Your task to perform on an android device: Search for the best selling jewelry on Etsy. Image 0: 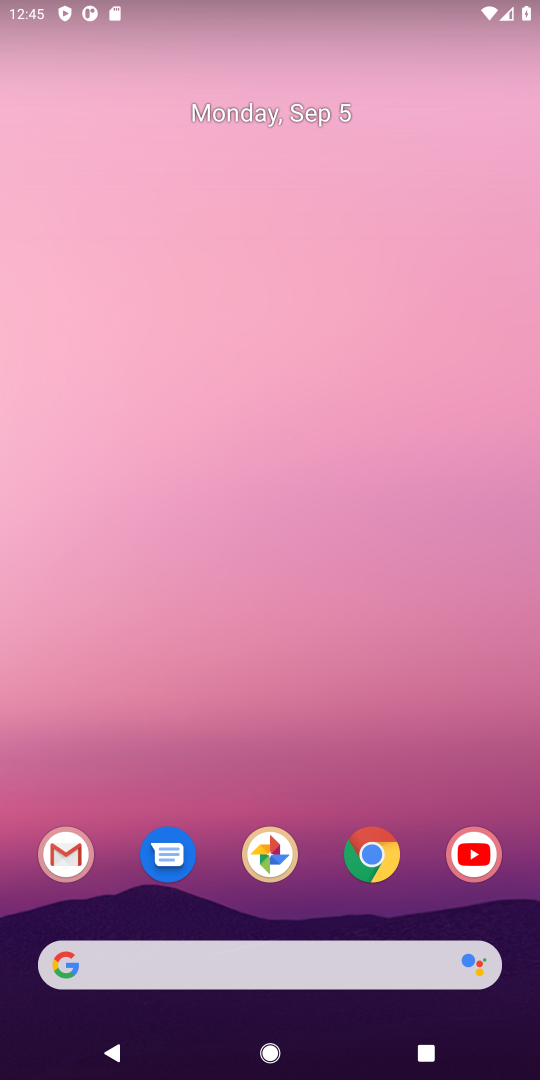
Step 0: click (379, 855)
Your task to perform on an android device: Search for the best selling jewelry on Etsy. Image 1: 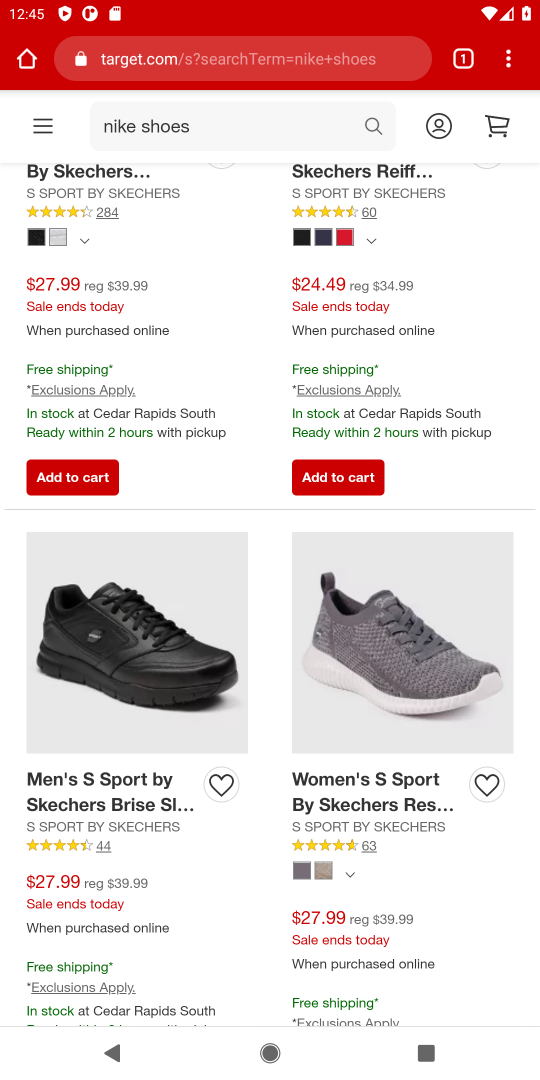
Step 1: click (334, 56)
Your task to perform on an android device: Search for the best selling jewelry on Etsy. Image 2: 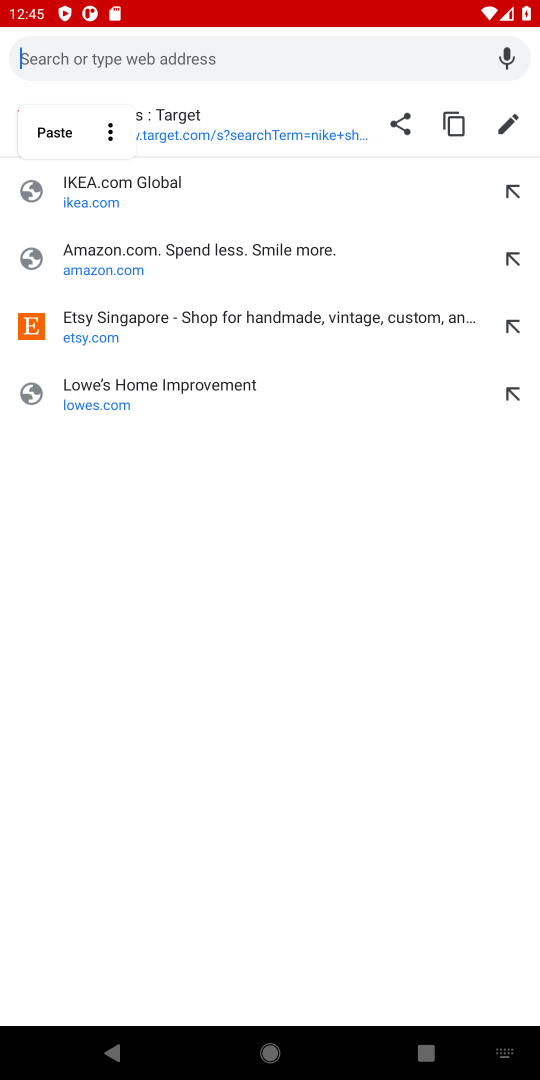
Step 2: press enter
Your task to perform on an android device: Search for the best selling jewelry on Etsy. Image 3: 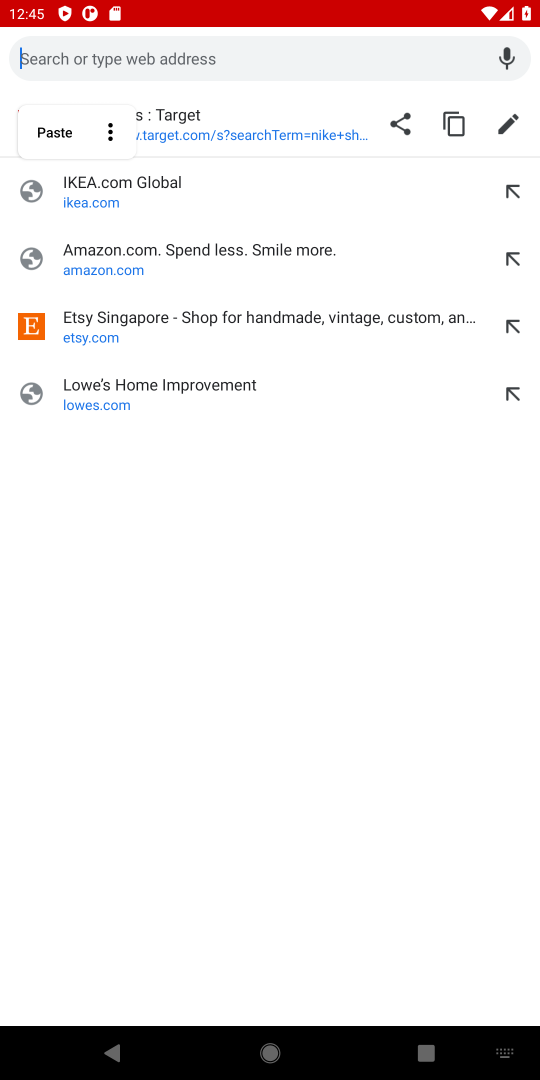
Step 3: type "Etsy"
Your task to perform on an android device: Search for the best selling jewelry on Etsy. Image 4: 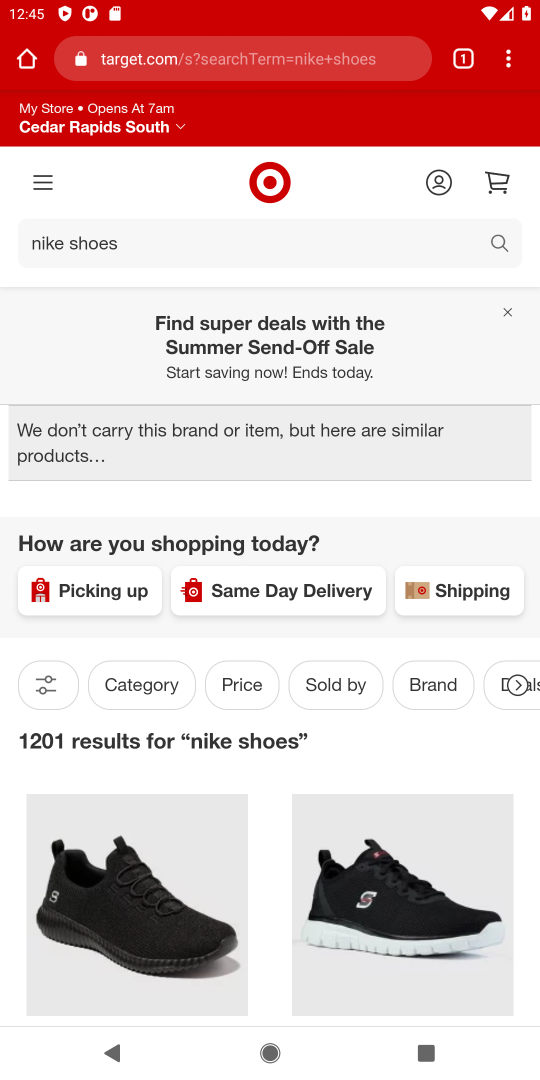
Step 4: click (334, 56)
Your task to perform on an android device: Search for the best selling jewelry on Etsy. Image 5: 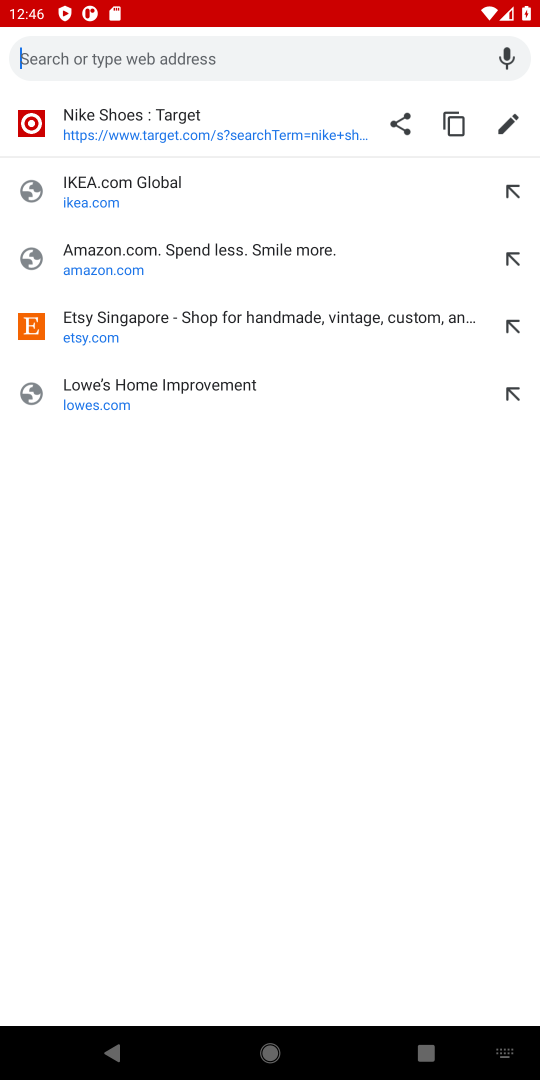
Step 5: type "Etsy"
Your task to perform on an android device: Search for the best selling jewelry on Etsy. Image 6: 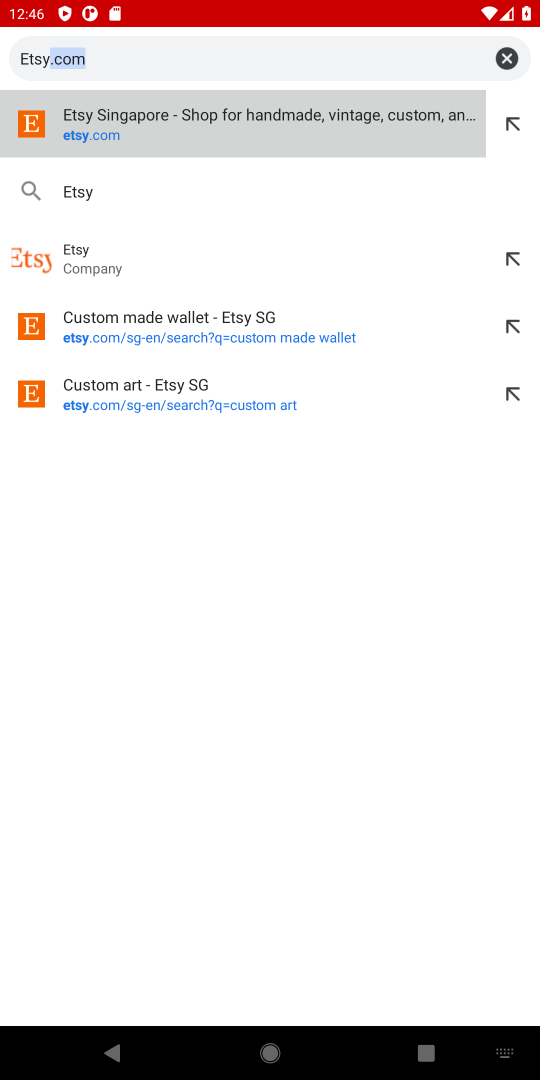
Step 6: press enter
Your task to perform on an android device: Search for the best selling jewelry on Etsy. Image 7: 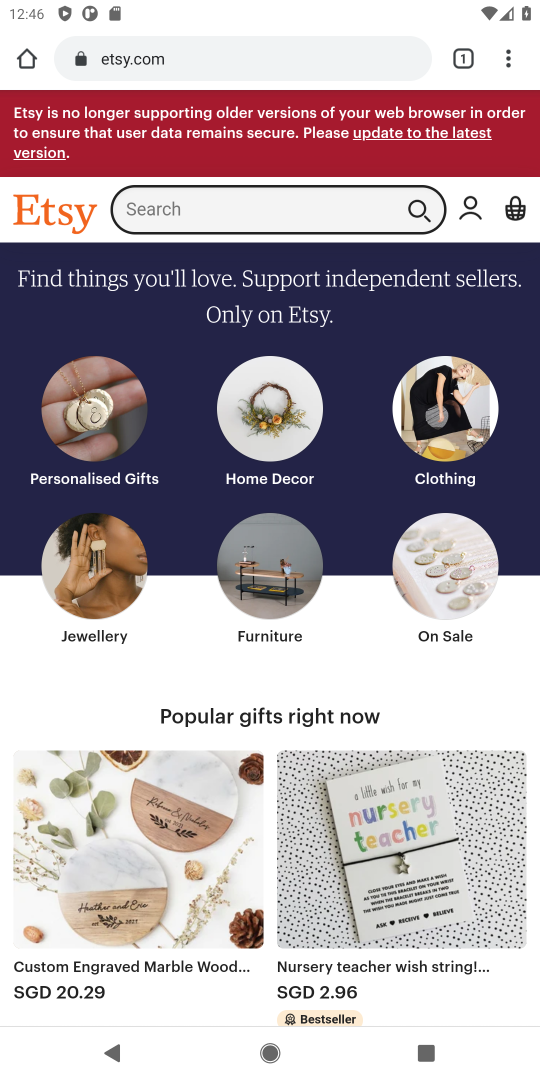
Step 7: click (360, 211)
Your task to perform on an android device: Search for the best selling jewelry on Etsy. Image 8: 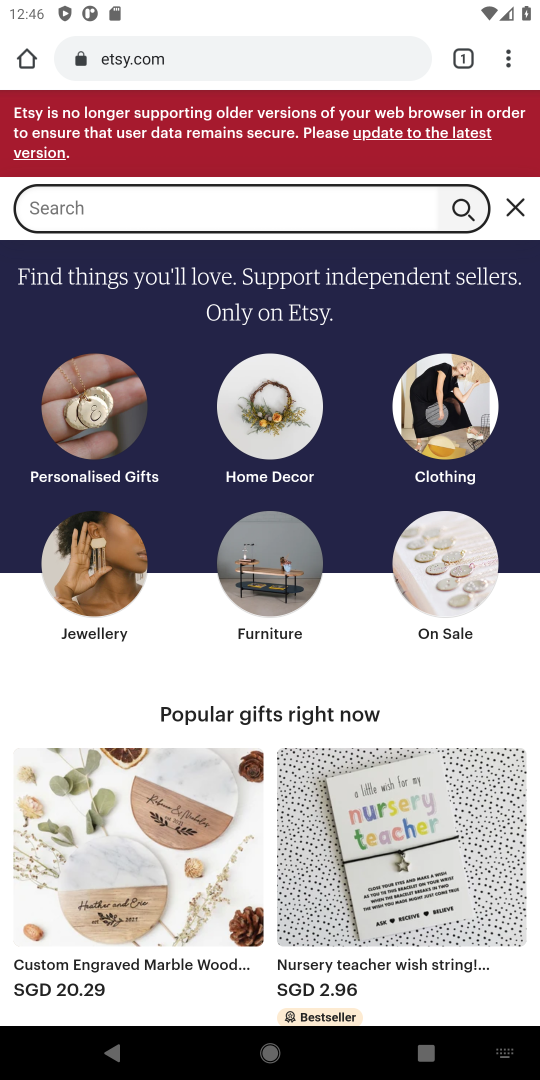
Step 8: click (57, 206)
Your task to perform on an android device: Search for the best selling jewelry on Etsy. Image 9: 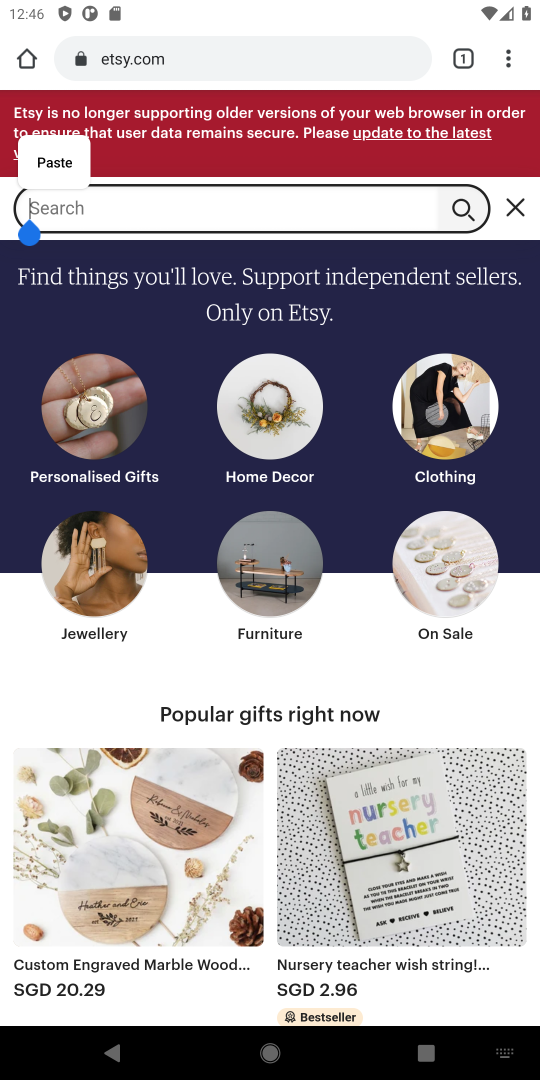
Step 9: type " jewelry"
Your task to perform on an android device: Search for the best selling jewelry on Etsy. Image 10: 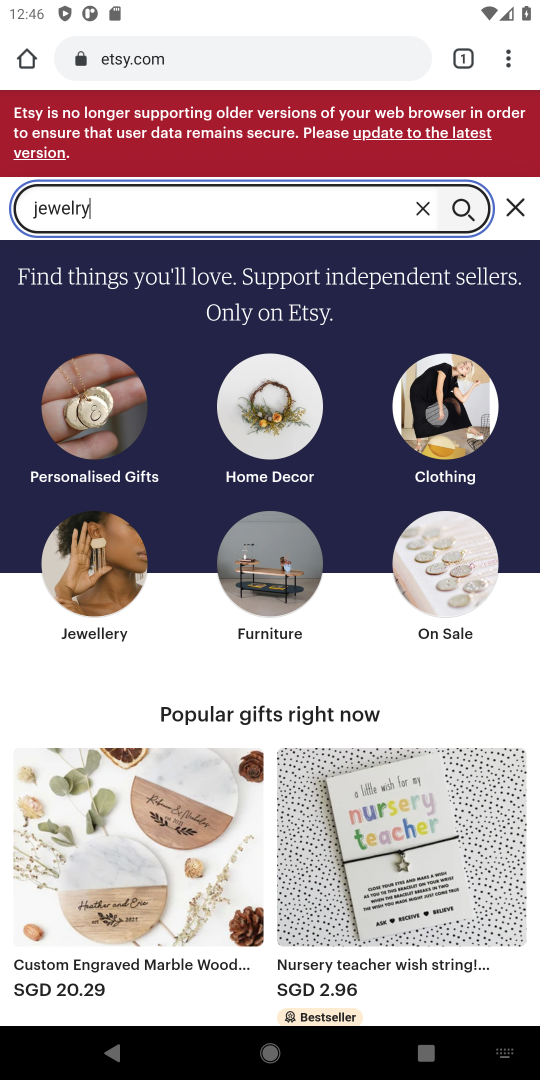
Step 10: press enter
Your task to perform on an android device: Search for the best selling jewelry on Etsy. Image 11: 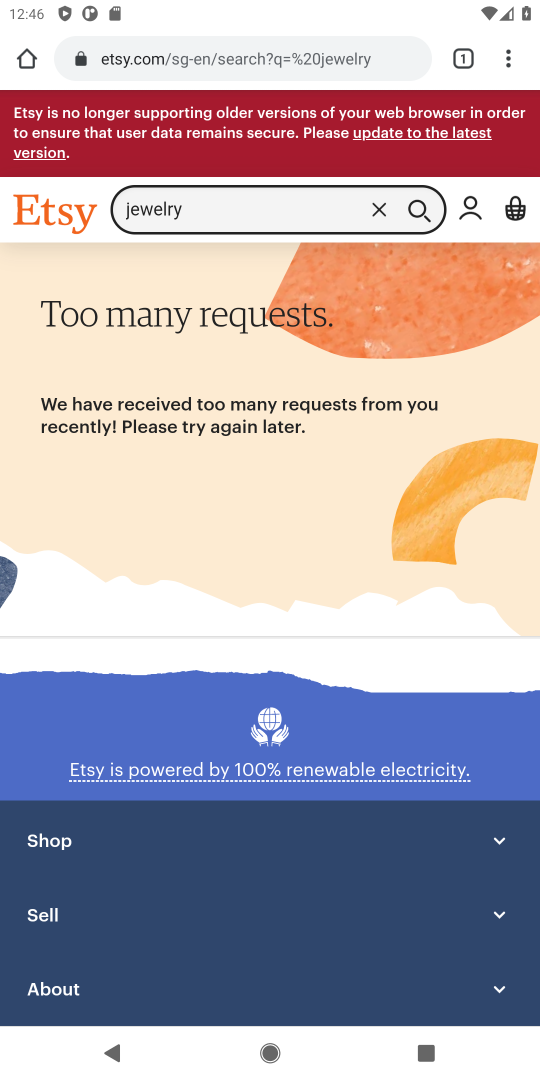
Step 11: click (355, 218)
Your task to perform on an android device: Search for the best selling jewelry on Etsy. Image 12: 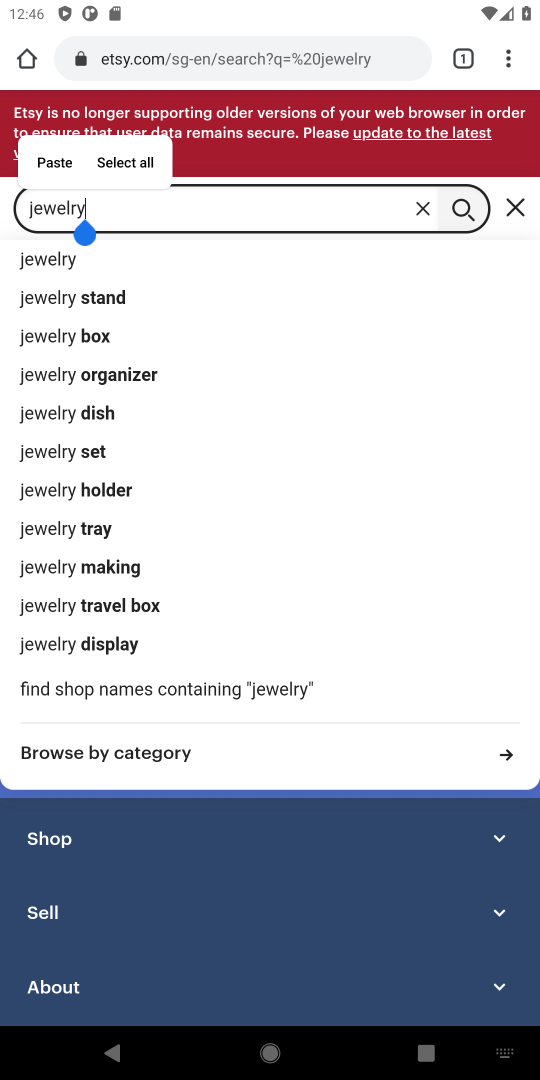
Step 12: click (57, 259)
Your task to perform on an android device: Search for the best selling jewelry on Etsy. Image 13: 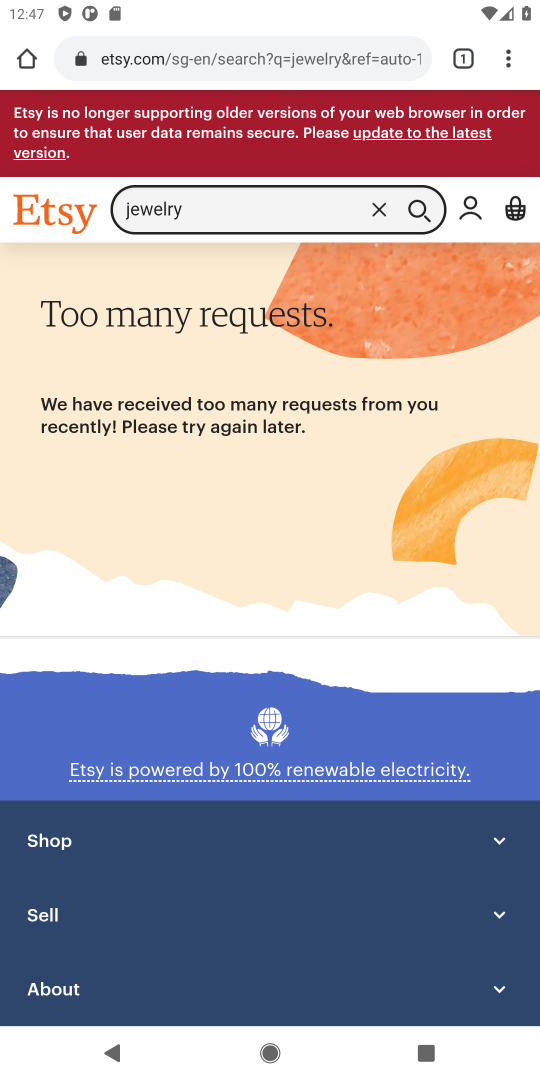
Step 13: click (418, 203)
Your task to perform on an android device: Search for the best selling jewelry on Etsy. Image 14: 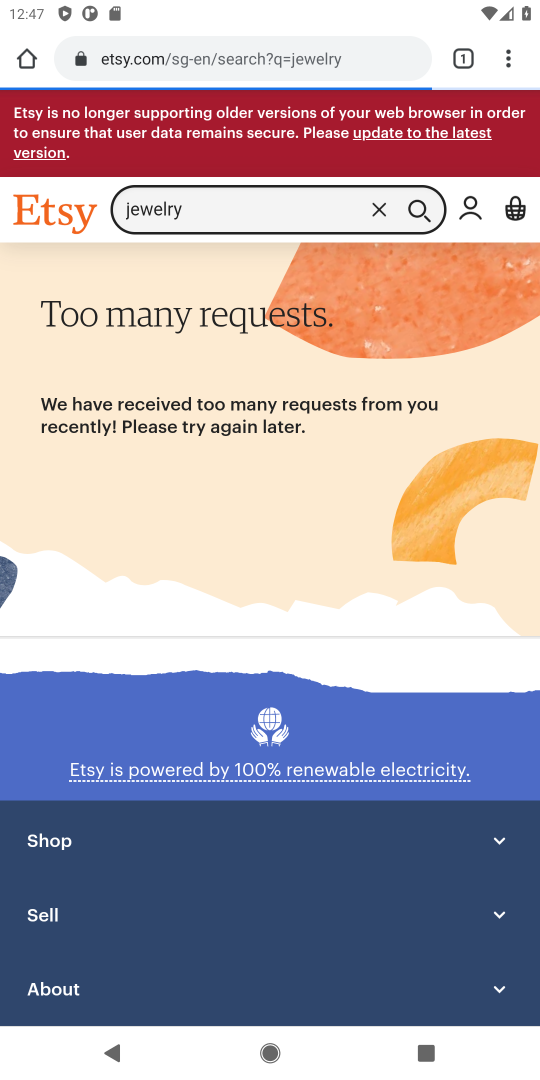
Step 14: click (376, 203)
Your task to perform on an android device: Search for the best selling jewelry on Etsy. Image 15: 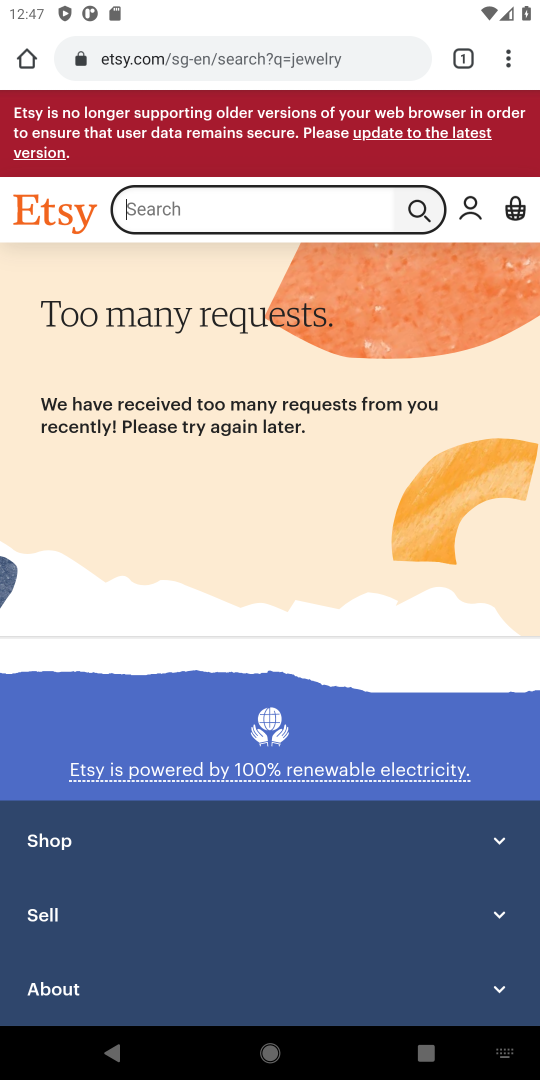
Step 15: click (251, 212)
Your task to perform on an android device: Search for the best selling jewelry on Etsy. Image 16: 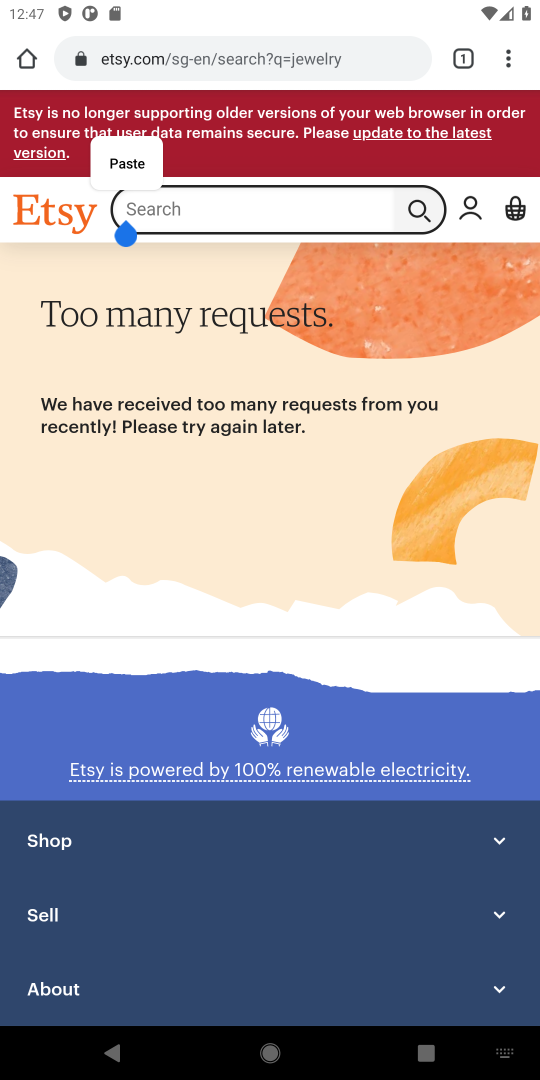
Step 16: type " selling jewelry"
Your task to perform on an android device: Search for the best selling jewelry on Etsy. Image 17: 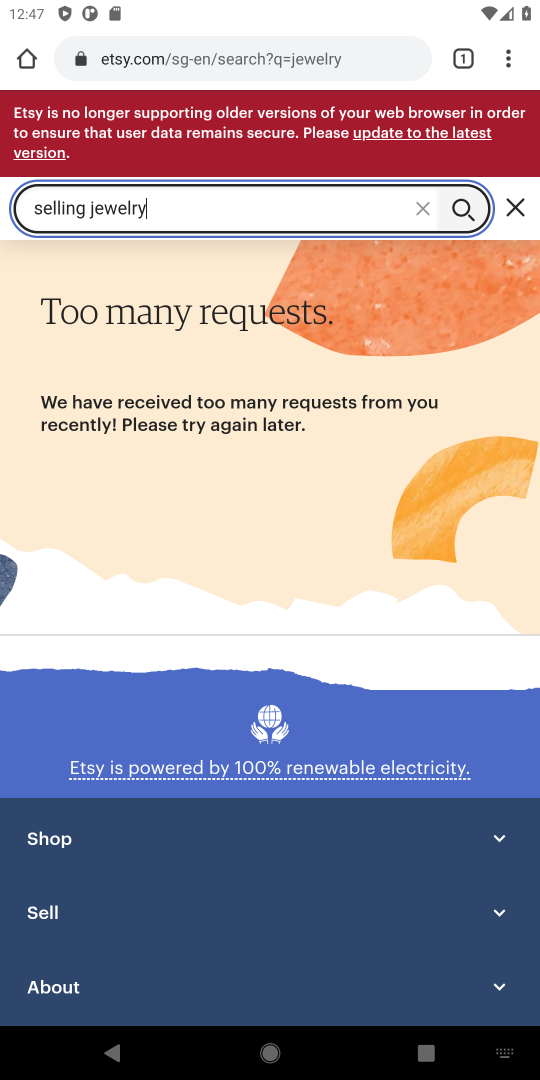
Step 17: press enter
Your task to perform on an android device: Search for the best selling jewelry on Etsy. Image 18: 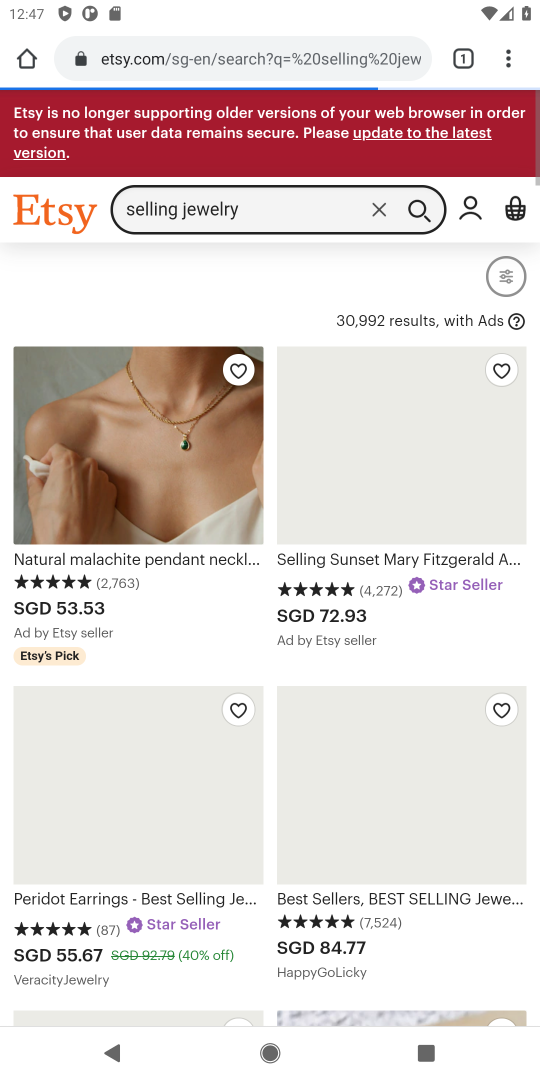
Step 18: click (468, 208)
Your task to perform on an android device: Search for the best selling jewelry on Etsy. Image 19: 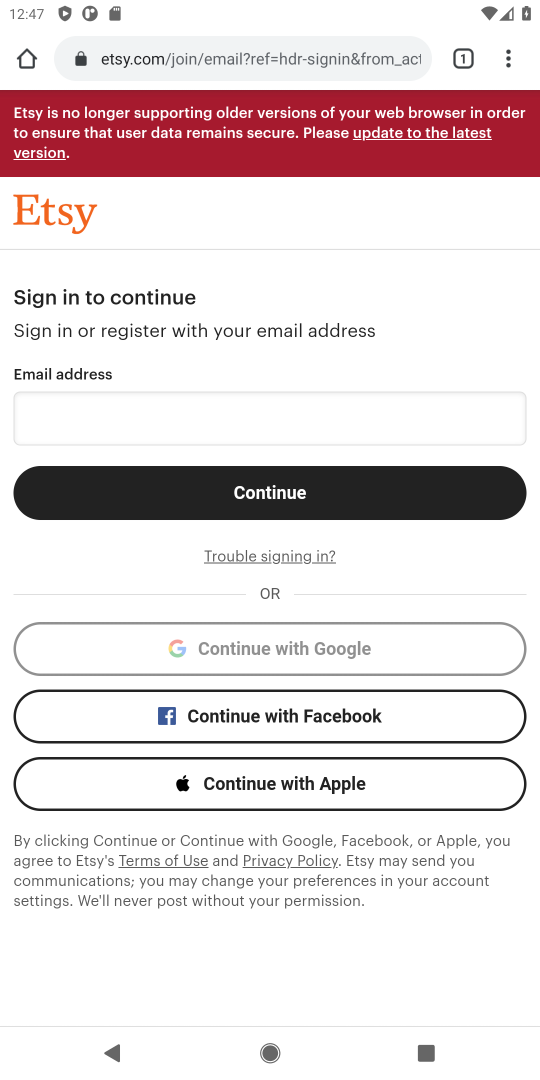
Step 19: task complete